Your task to perform on an android device: What's the weather today? Image 0: 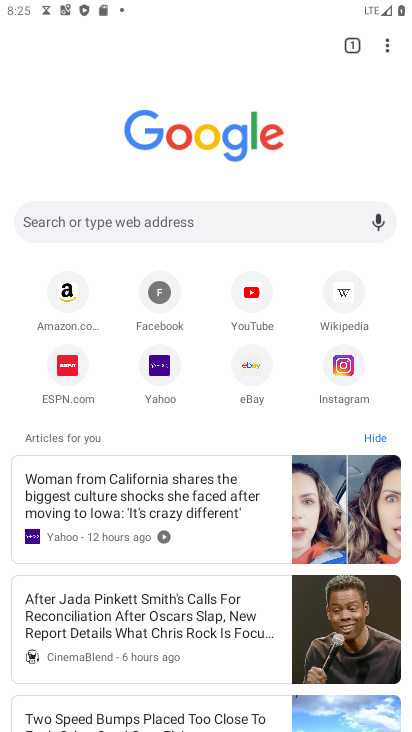
Step 0: press home button
Your task to perform on an android device: What's the weather today? Image 1: 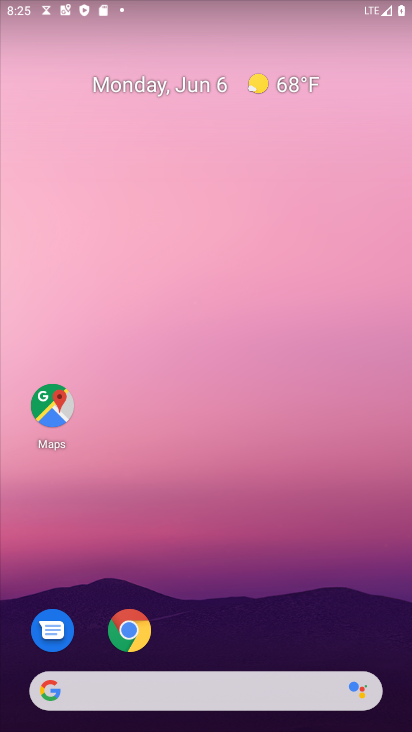
Step 1: drag from (261, 614) to (212, 146)
Your task to perform on an android device: What's the weather today? Image 2: 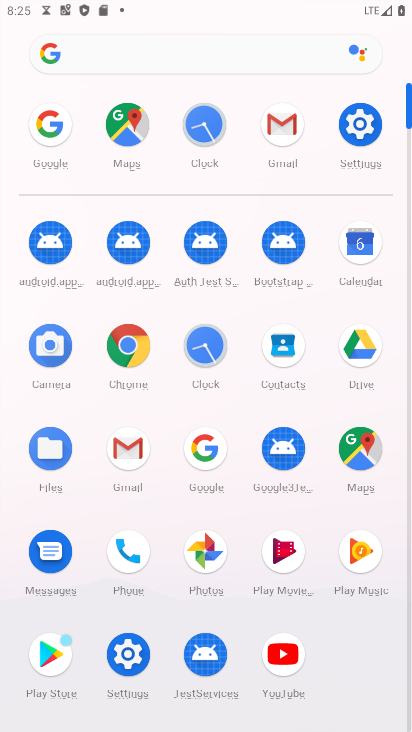
Step 2: click (48, 124)
Your task to perform on an android device: What's the weather today? Image 3: 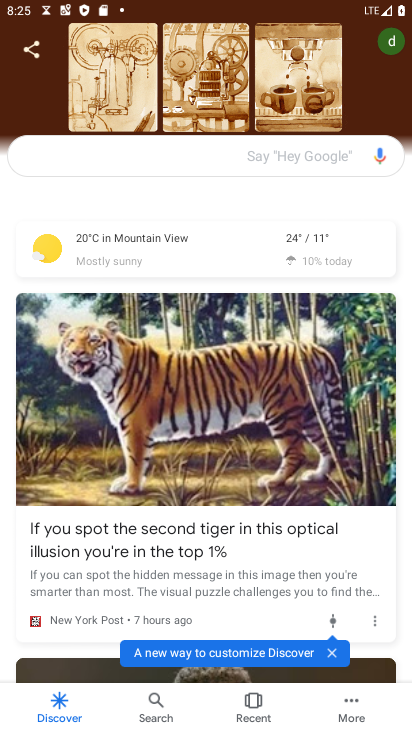
Step 3: click (173, 243)
Your task to perform on an android device: What's the weather today? Image 4: 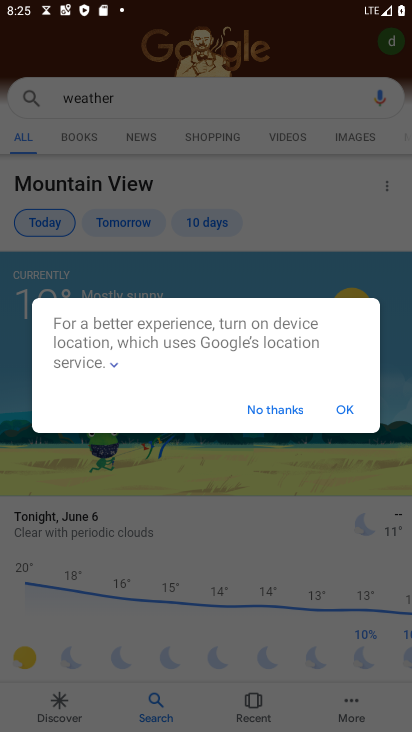
Step 4: click (285, 405)
Your task to perform on an android device: What's the weather today? Image 5: 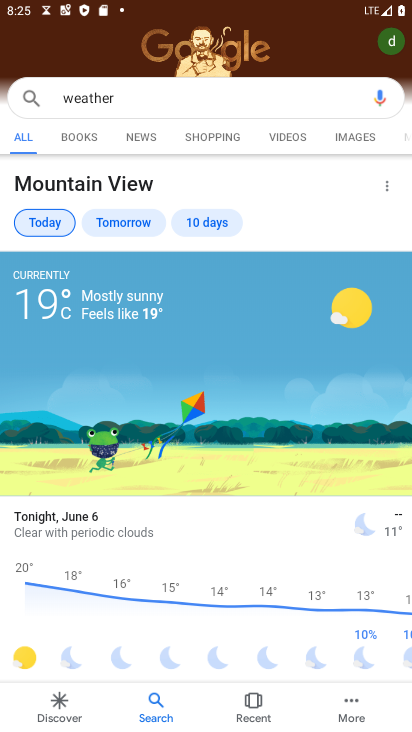
Step 5: task complete